Your task to perform on an android device: snooze an email in the gmail app Image 0: 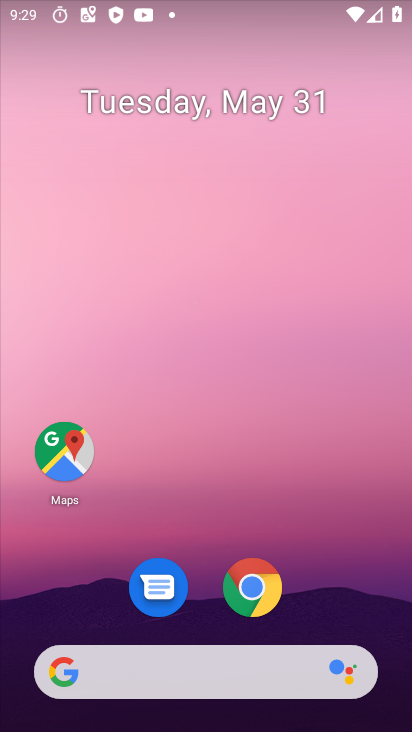
Step 0: drag from (300, 582) to (258, 74)
Your task to perform on an android device: snooze an email in the gmail app Image 1: 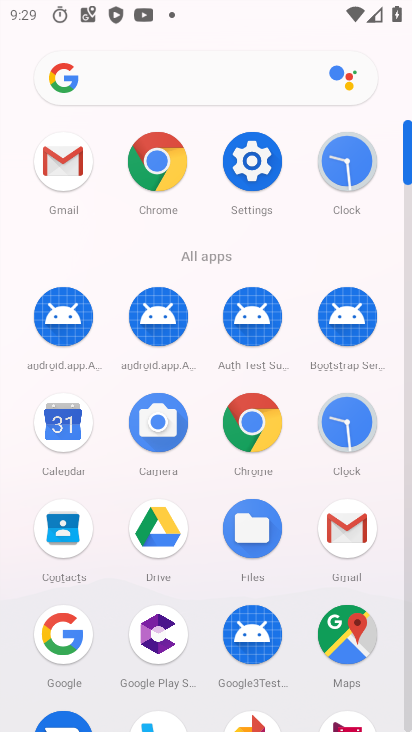
Step 1: click (347, 518)
Your task to perform on an android device: snooze an email in the gmail app Image 2: 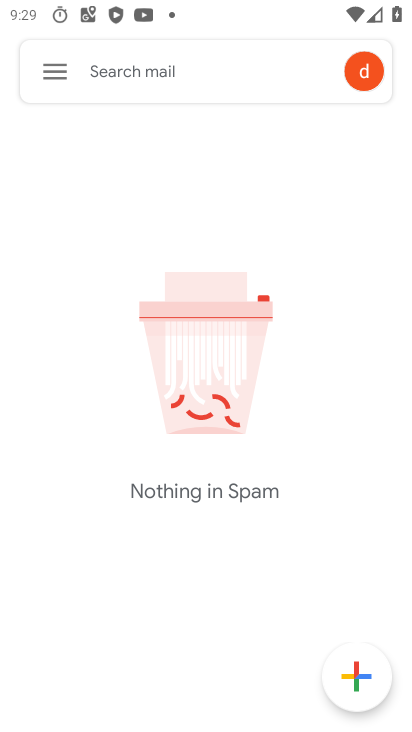
Step 2: click (52, 67)
Your task to perform on an android device: snooze an email in the gmail app Image 3: 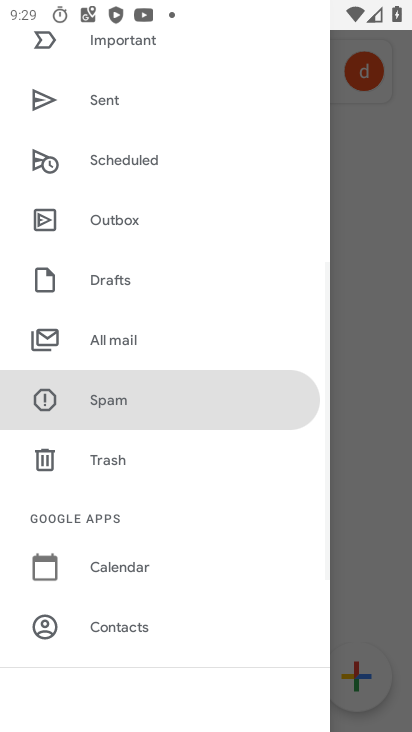
Step 3: drag from (137, 111) to (16, 624)
Your task to perform on an android device: snooze an email in the gmail app Image 4: 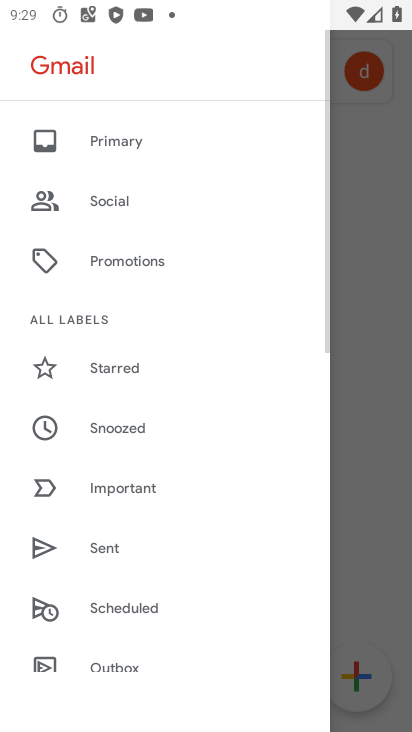
Step 4: click (113, 144)
Your task to perform on an android device: snooze an email in the gmail app Image 5: 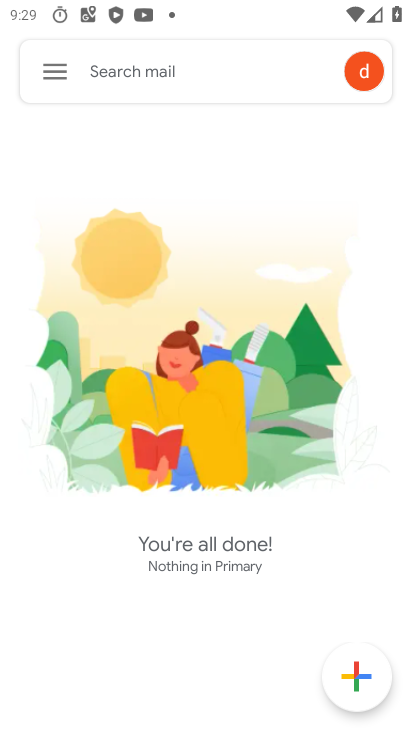
Step 5: task complete